Your task to perform on an android device: toggle airplane mode Image 0: 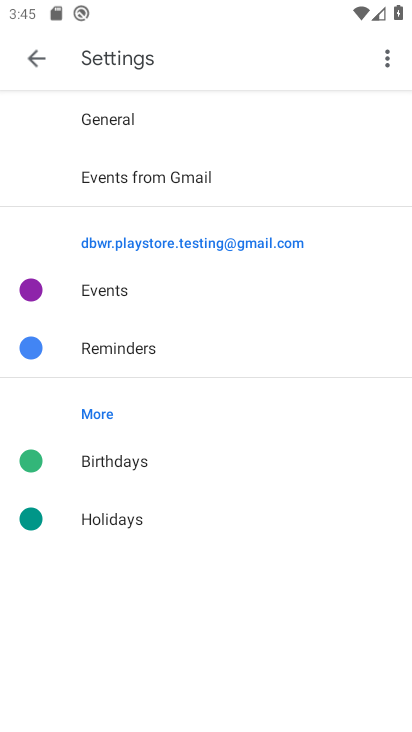
Step 0: press home button
Your task to perform on an android device: toggle airplane mode Image 1: 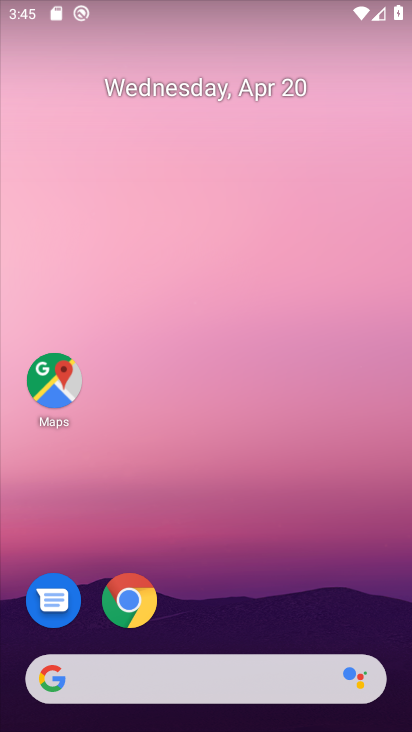
Step 1: drag from (210, 85) to (215, 588)
Your task to perform on an android device: toggle airplane mode Image 2: 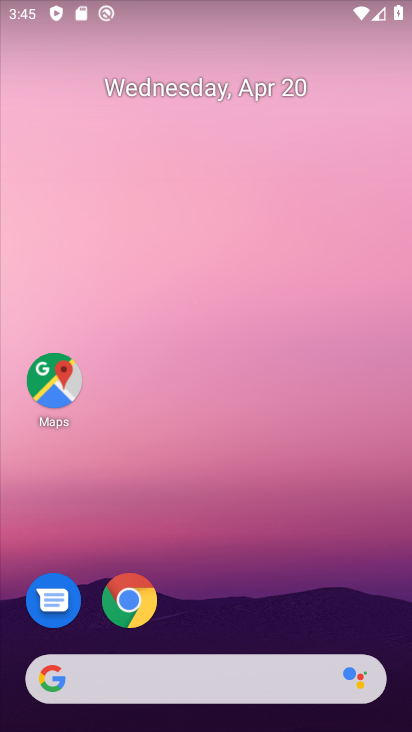
Step 2: click (302, 731)
Your task to perform on an android device: toggle airplane mode Image 3: 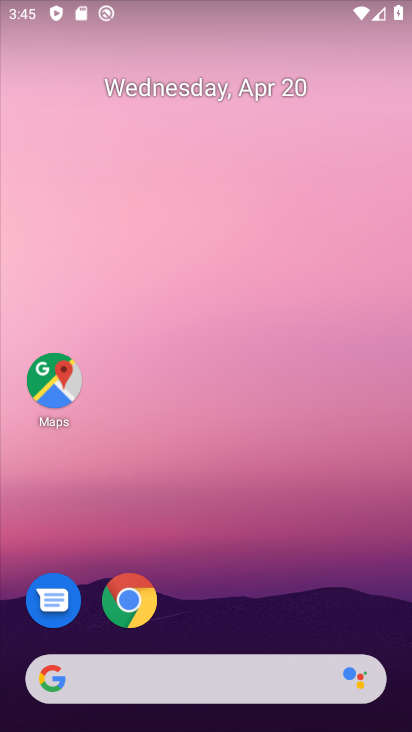
Step 3: drag from (213, 11) to (201, 474)
Your task to perform on an android device: toggle airplane mode Image 4: 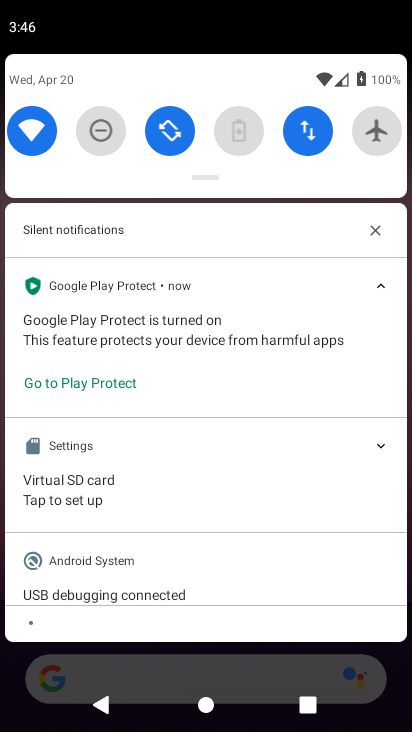
Step 4: click (382, 126)
Your task to perform on an android device: toggle airplane mode Image 5: 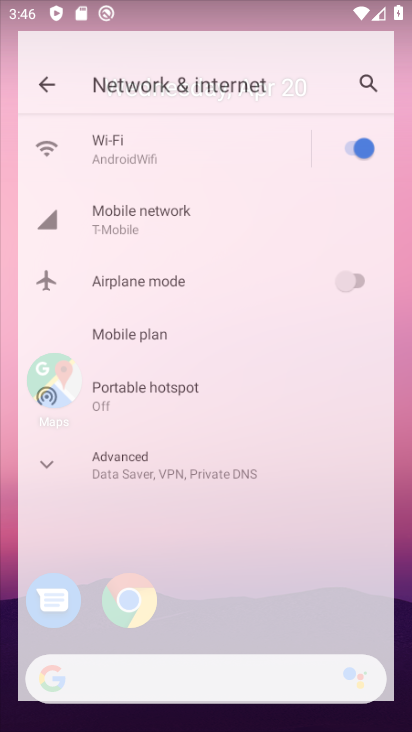
Step 5: drag from (275, 10) to (264, 519)
Your task to perform on an android device: toggle airplane mode Image 6: 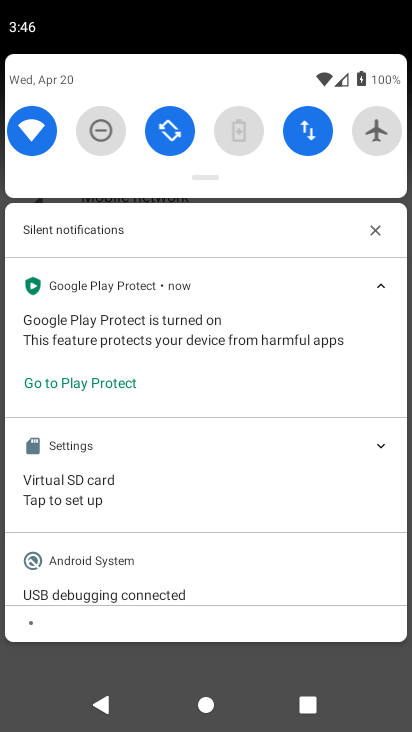
Step 6: click (378, 128)
Your task to perform on an android device: toggle airplane mode Image 7: 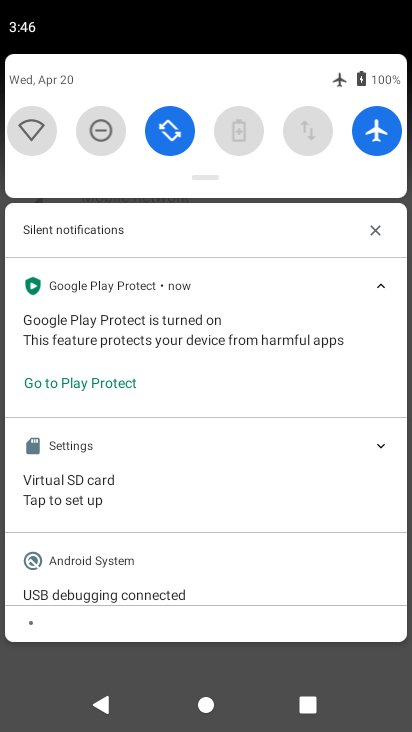
Step 7: task complete